Your task to perform on an android device: open a new tab in the chrome app Image 0: 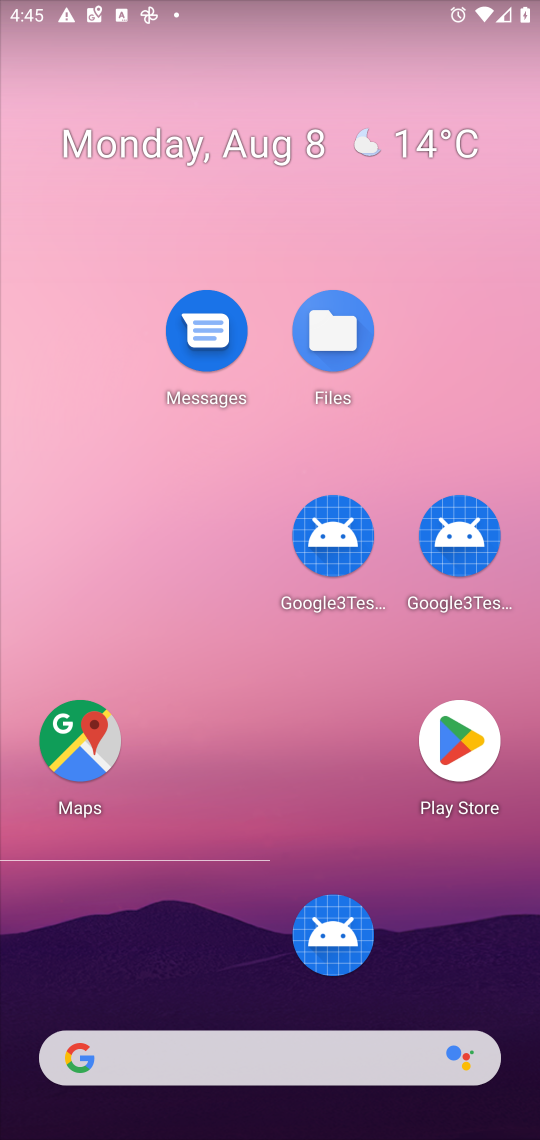
Step 0: drag from (372, 793) to (363, 166)
Your task to perform on an android device: open a new tab in the chrome app Image 1: 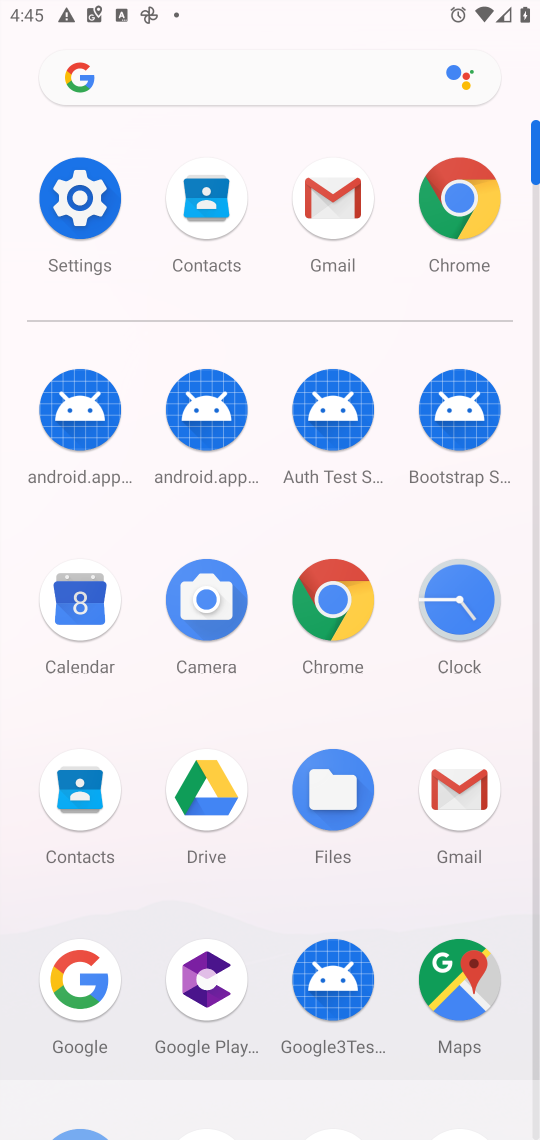
Step 1: click (333, 612)
Your task to perform on an android device: open a new tab in the chrome app Image 2: 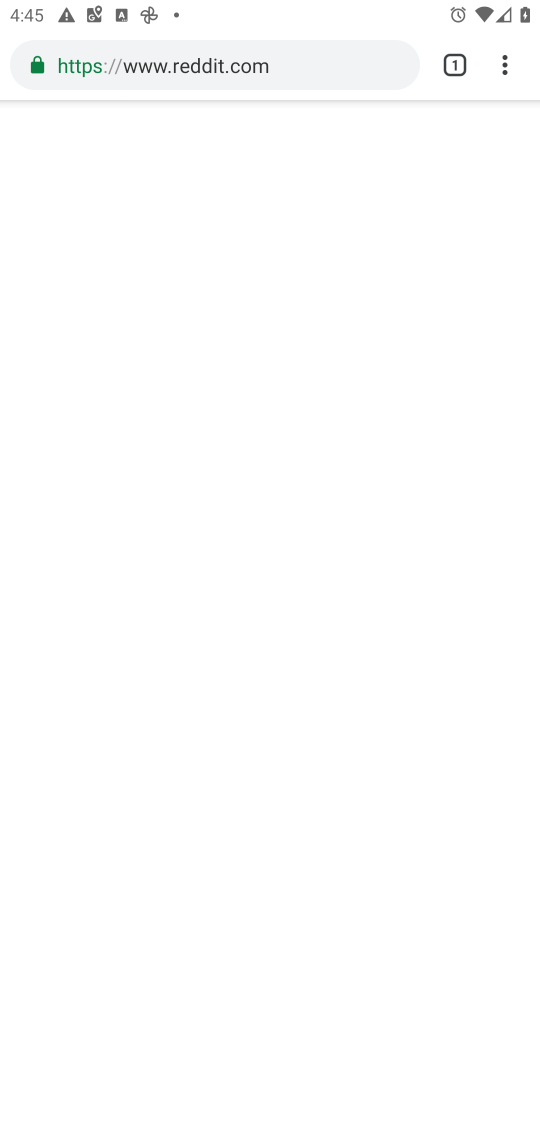
Step 2: click (504, 62)
Your task to perform on an android device: open a new tab in the chrome app Image 3: 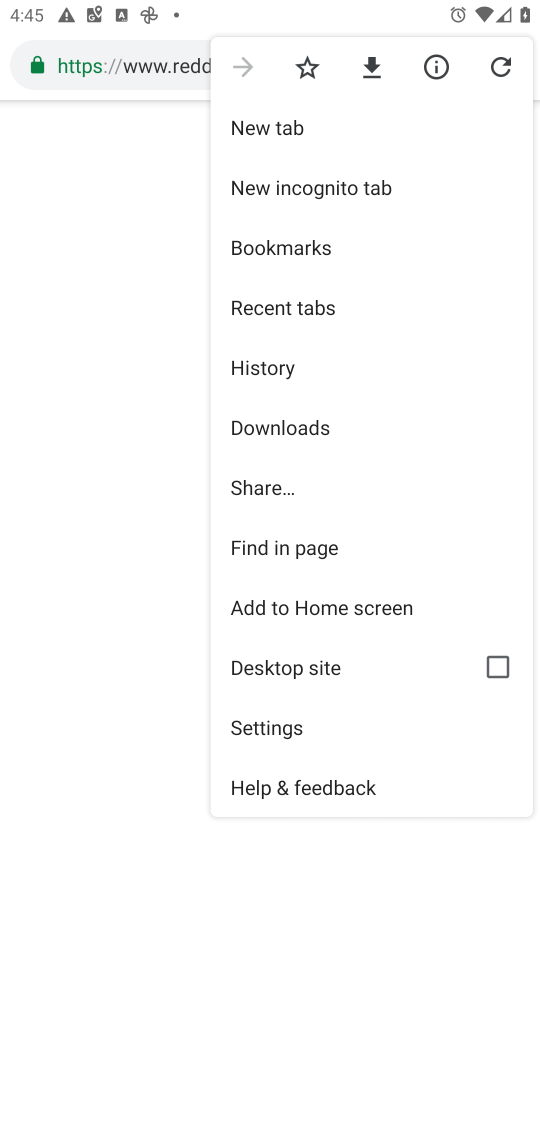
Step 3: click (273, 127)
Your task to perform on an android device: open a new tab in the chrome app Image 4: 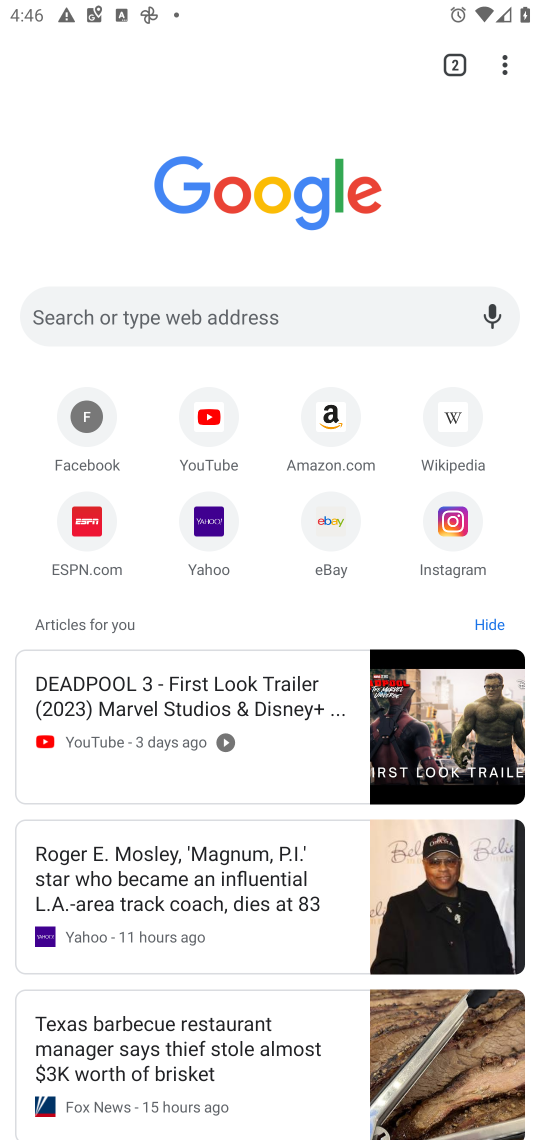
Step 4: task complete